Your task to perform on an android device: Open settings on Google Maps Image 0: 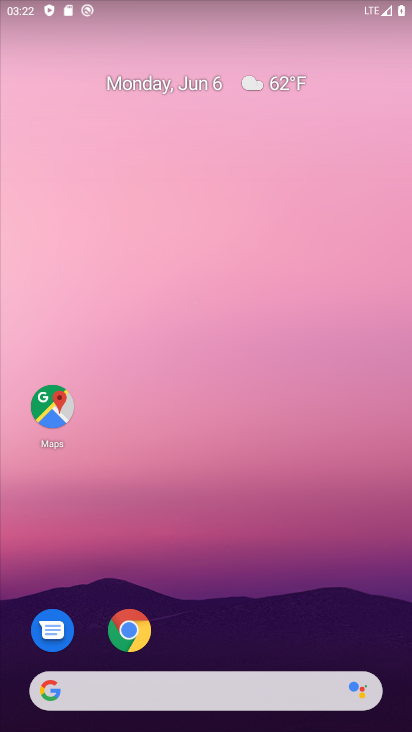
Step 0: click (137, 633)
Your task to perform on an android device: Open settings on Google Maps Image 1: 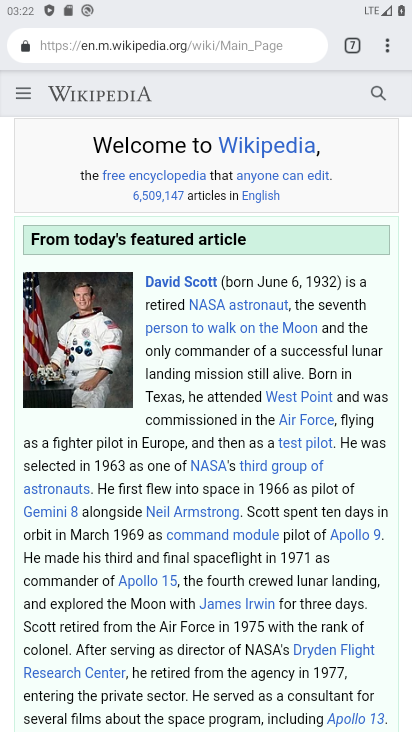
Step 1: drag from (378, 45) to (230, 552)
Your task to perform on an android device: Open settings on Google Maps Image 2: 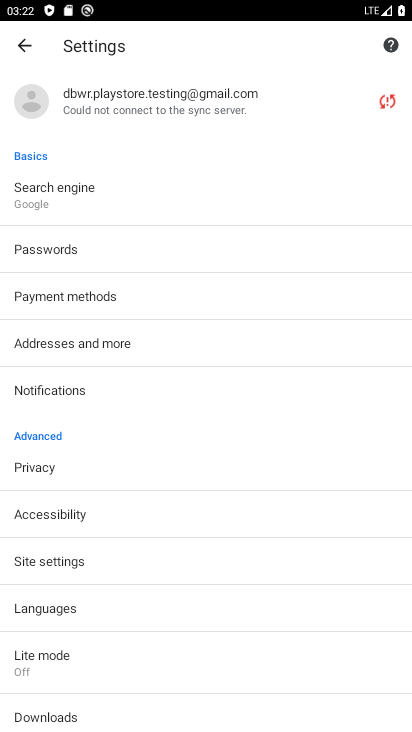
Step 2: press home button
Your task to perform on an android device: Open settings on Google Maps Image 3: 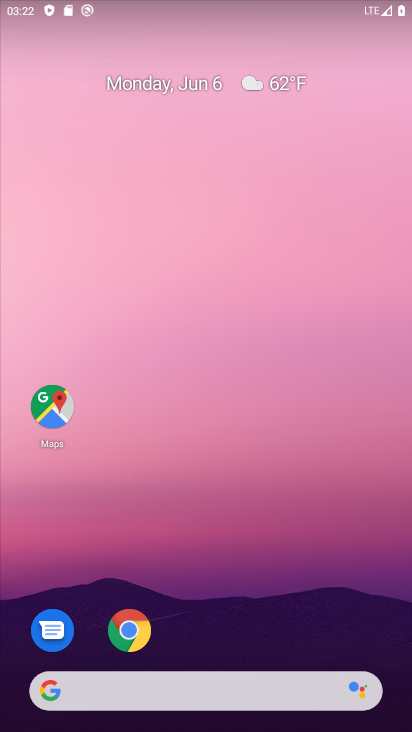
Step 3: drag from (278, 625) to (252, 95)
Your task to perform on an android device: Open settings on Google Maps Image 4: 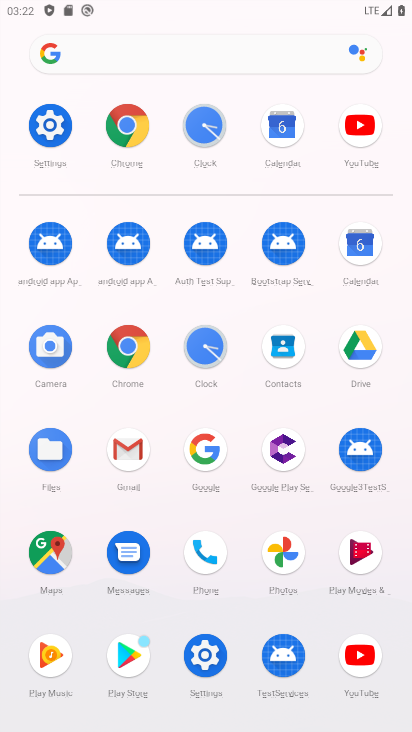
Step 4: click (33, 554)
Your task to perform on an android device: Open settings on Google Maps Image 5: 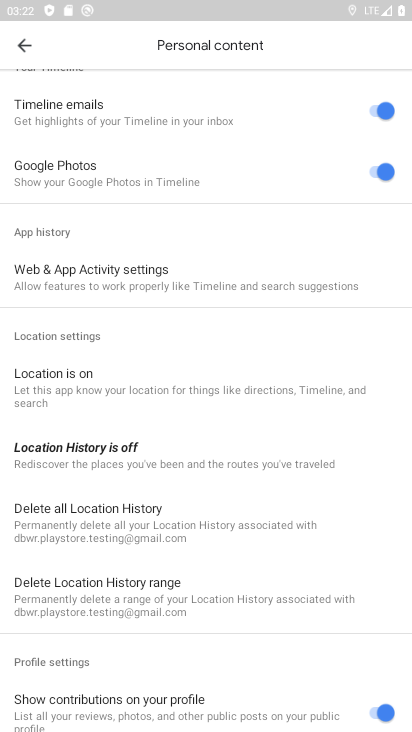
Step 5: click (24, 55)
Your task to perform on an android device: Open settings on Google Maps Image 6: 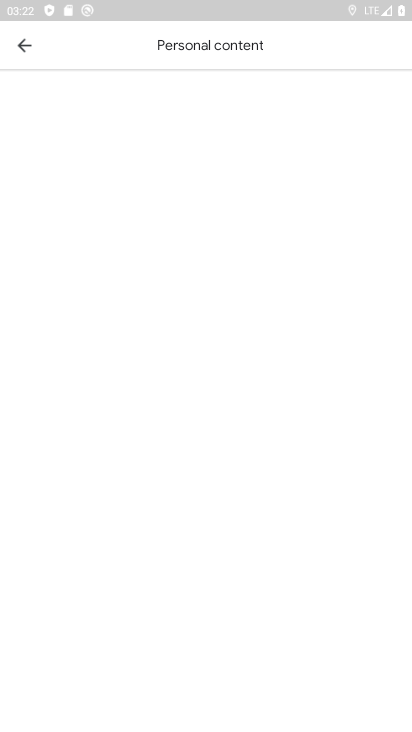
Step 6: click (24, 55)
Your task to perform on an android device: Open settings on Google Maps Image 7: 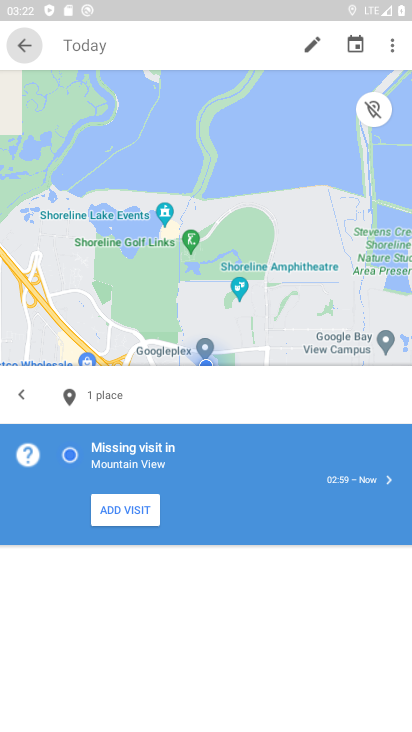
Step 7: click (24, 55)
Your task to perform on an android device: Open settings on Google Maps Image 8: 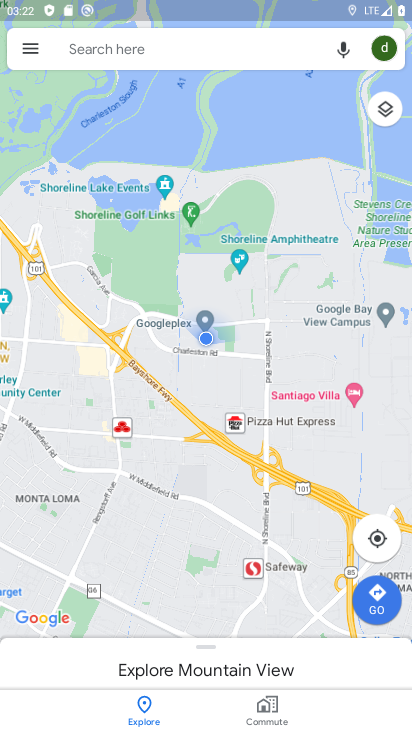
Step 8: click (24, 55)
Your task to perform on an android device: Open settings on Google Maps Image 9: 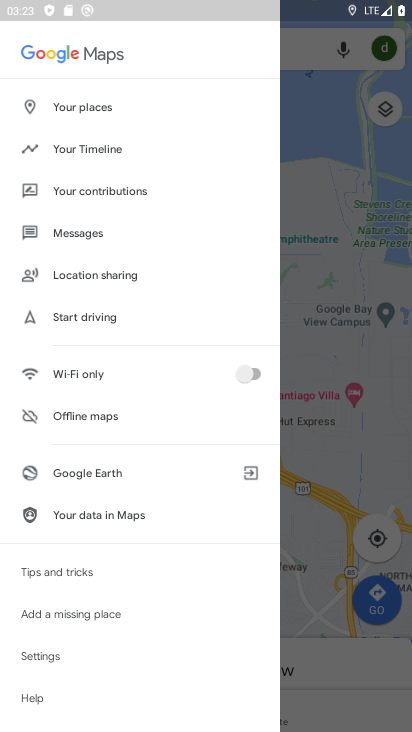
Step 9: click (60, 657)
Your task to perform on an android device: Open settings on Google Maps Image 10: 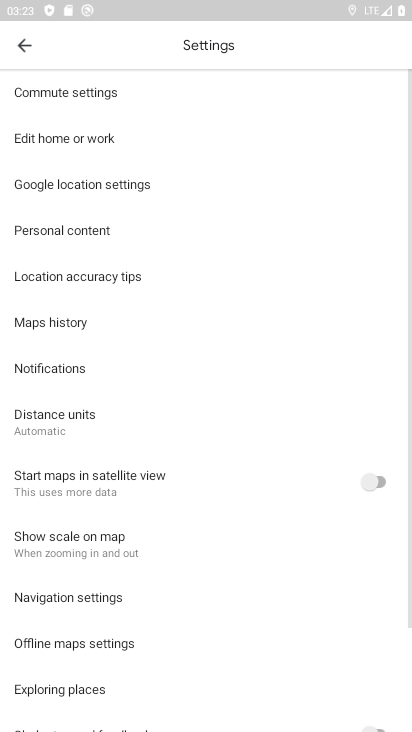
Step 10: task complete